Your task to perform on an android device: Open CNN.com Image 0: 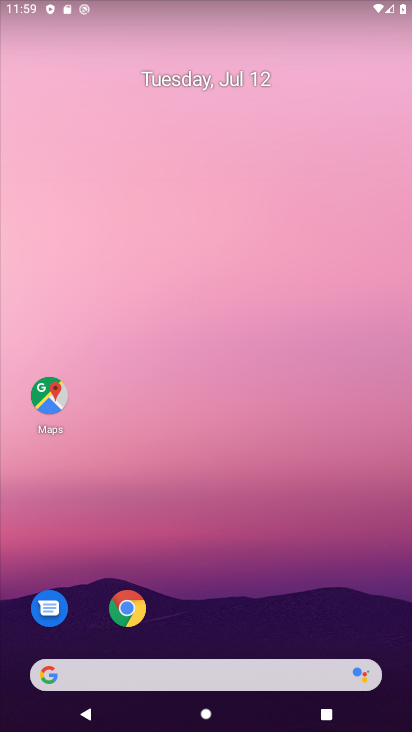
Step 0: click (127, 610)
Your task to perform on an android device: Open CNN.com Image 1: 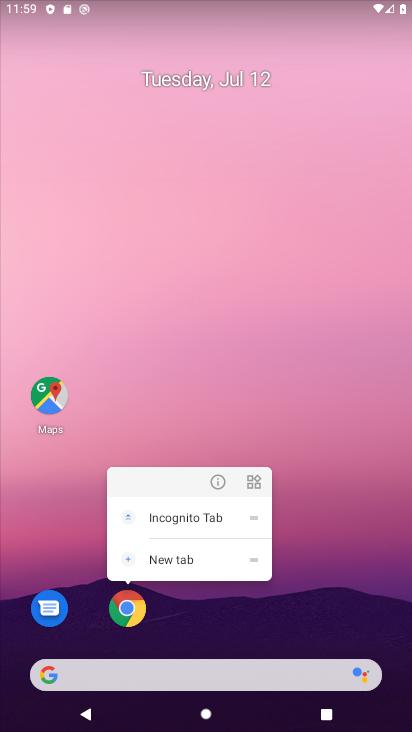
Step 1: click (129, 614)
Your task to perform on an android device: Open CNN.com Image 2: 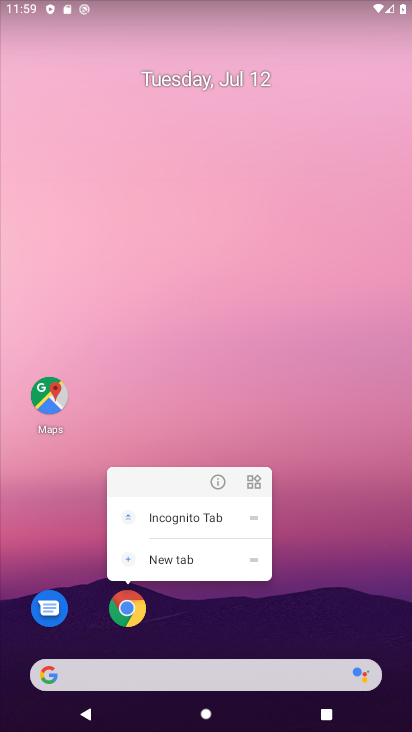
Step 2: click (129, 610)
Your task to perform on an android device: Open CNN.com Image 3: 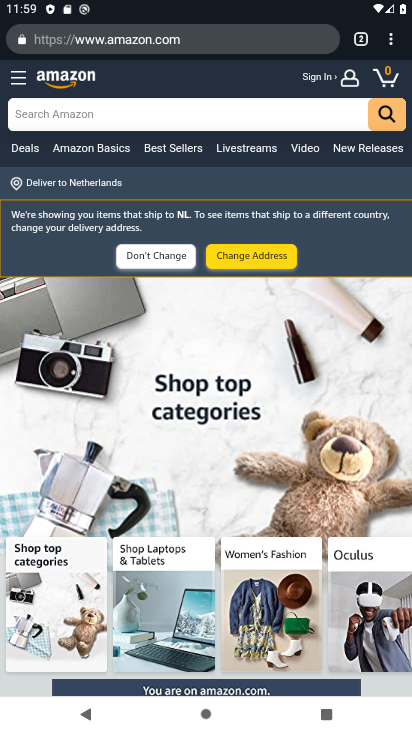
Step 3: click (352, 36)
Your task to perform on an android device: Open CNN.com Image 4: 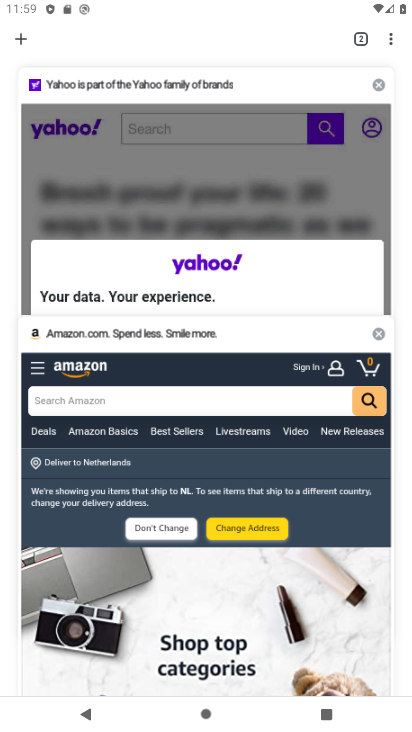
Step 4: click (27, 39)
Your task to perform on an android device: Open CNN.com Image 5: 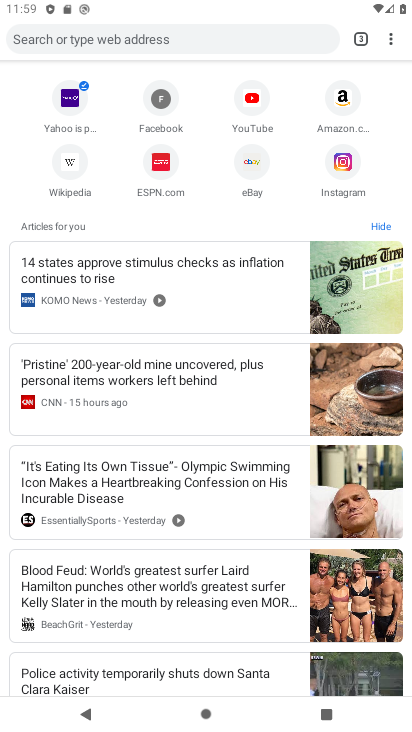
Step 5: click (108, 32)
Your task to perform on an android device: Open CNN.com Image 6: 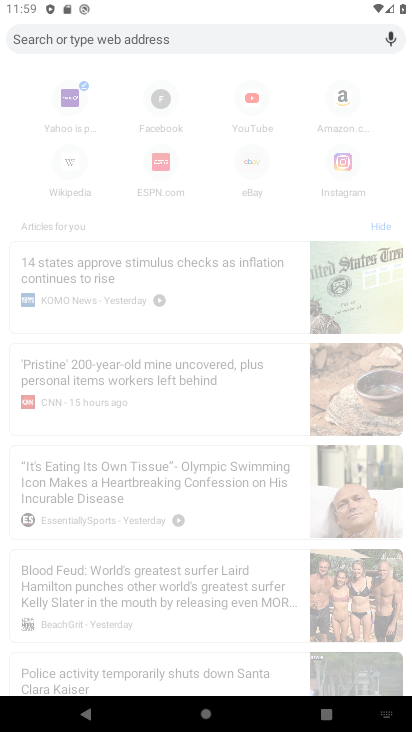
Step 6: type "cnn.com"
Your task to perform on an android device: Open CNN.com Image 7: 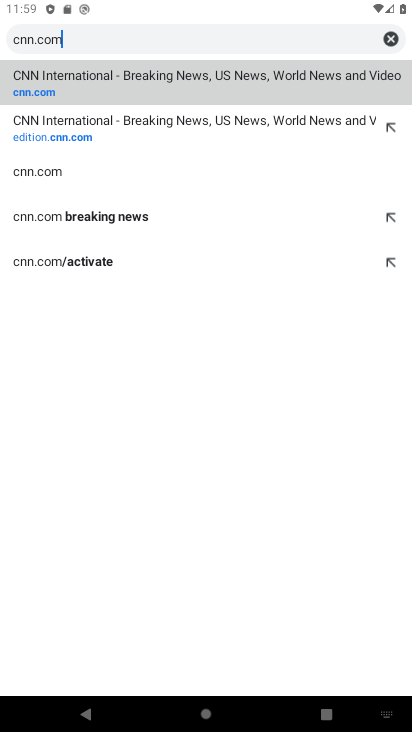
Step 7: click (150, 79)
Your task to perform on an android device: Open CNN.com Image 8: 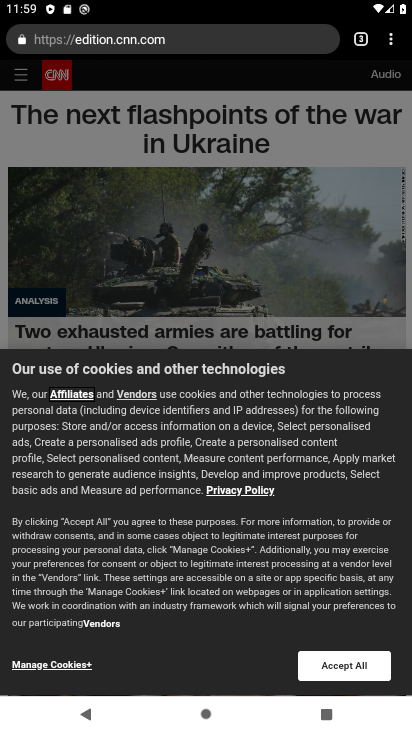
Step 8: task complete